Your task to perform on an android device: Open the calendar app, open the side menu, and click the "Day" option Image 0: 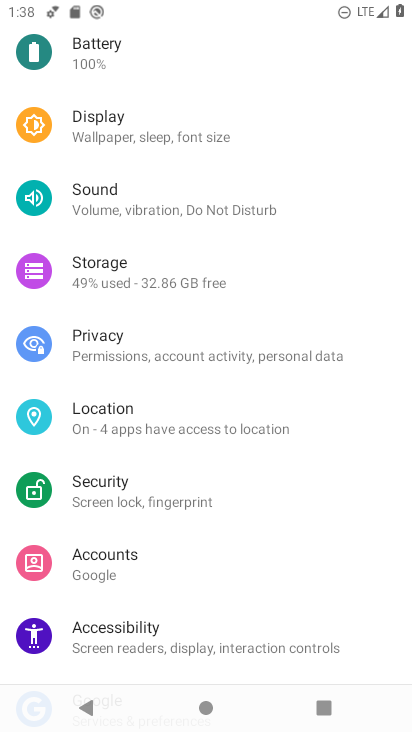
Step 0: press home button
Your task to perform on an android device: Open the calendar app, open the side menu, and click the "Day" option Image 1: 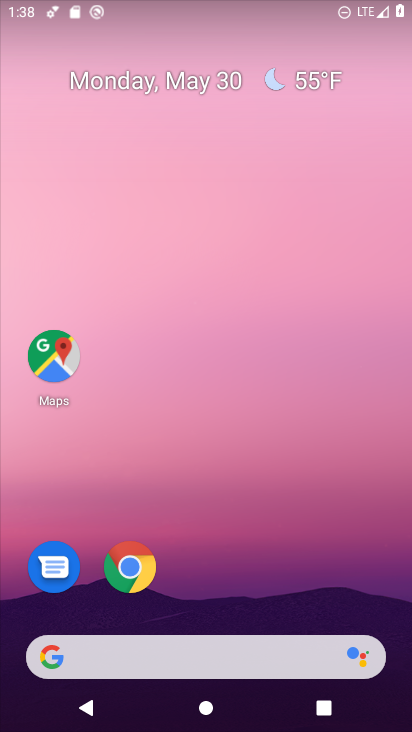
Step 1: drag from (213, 604) to (294, 122)
Your task to perform on an android device: Open the calendar app, open the side menu, and click the "Day" option Image 2: 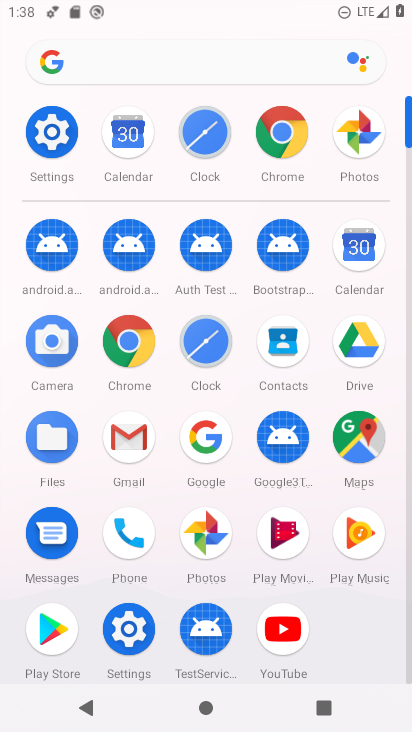
Step 2: click (358, 241)
Your task to perform on an android device: Open the calendar app, open the side menu, and click the "Day" option Image 3: 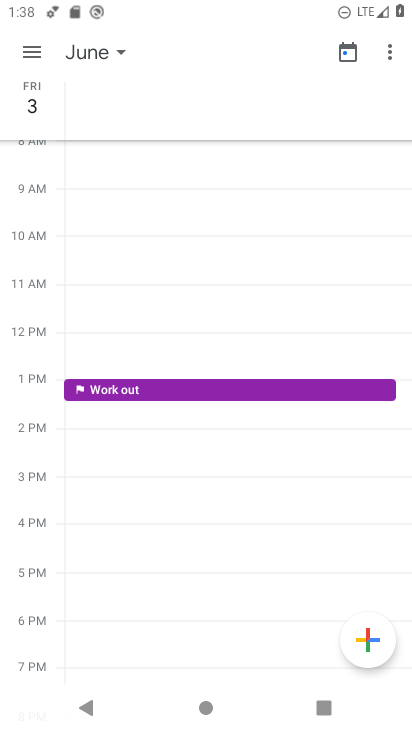
Step 3: click (35, 49)
Your task to perform on an android device: Open the calendar app, open the side menu, and click the "Day" option Image 4: 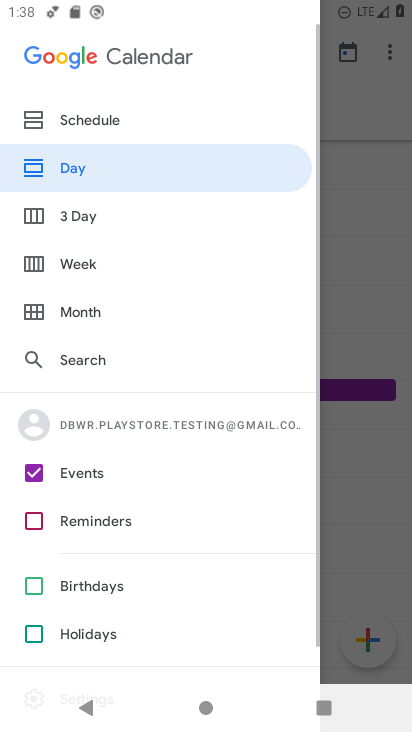
Step 4: click (81, 158)
Your task to perform on an android device: Open the calendar app, open the side menu, and click the "Day" option Image 5: 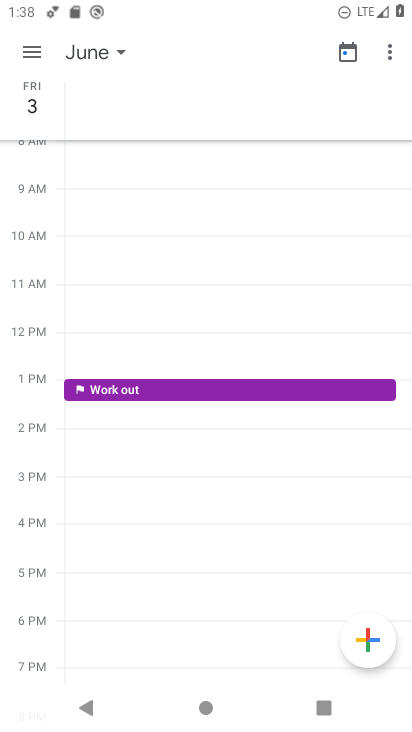
Step 5: task complete